Your task to perform on an android device: Clear the cart on amazon.com. Add razer huntsman to the cart on amazon.com Image 0: 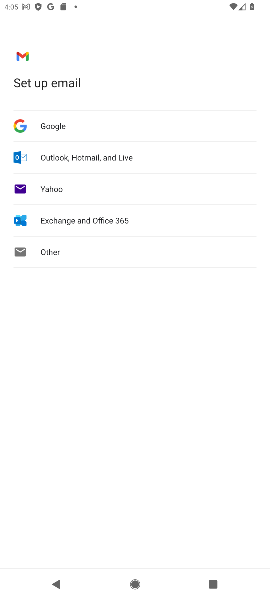
Step 0: press home button
Your task to perform on an android device: Clear the cart on amazon.com. Add razer huntsman to the cart on amazon.com Image 1: 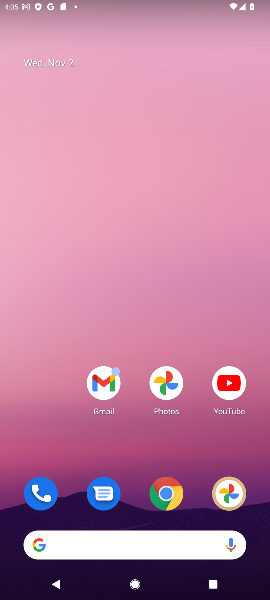
Step 1: drag from (134, 496) to (144, 178)
Your task to perform on an android device: Clear the cart on amazon.com. Add razer huntsman to the cart on amazon.com Image 2: 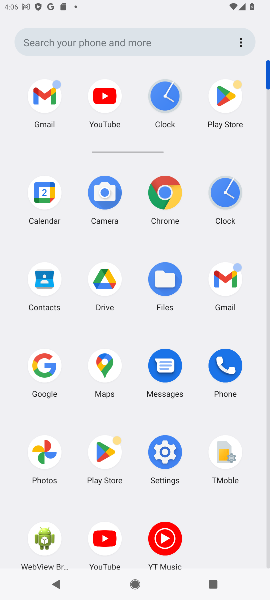
Step 2: click (41, 366)
Your task to perform on an android device: Clear the cart on amazon.com. Add razer huntsman to the cart on amazon.com Image 3: 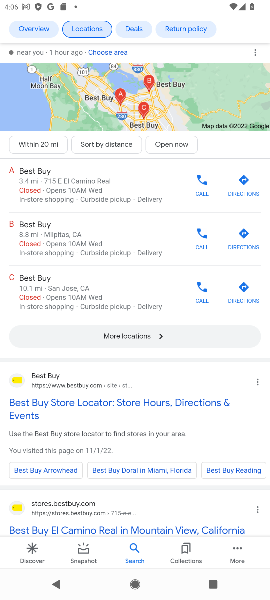
Step 3: drag from (110, 166) to (106, 483)
Your task to perform on an android device: Clear the cart on amazon.com. Add razer huntsman to the cart on amazon.com Image 4: 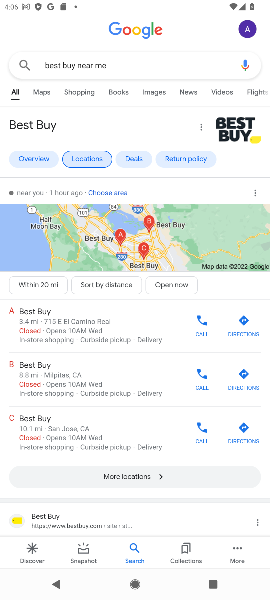
Step 4: click (136, 63)
Your task to perform on an android device: Clear the cart on amazon.com. Add razer huntsman to the cart on amazon.com Image 5: 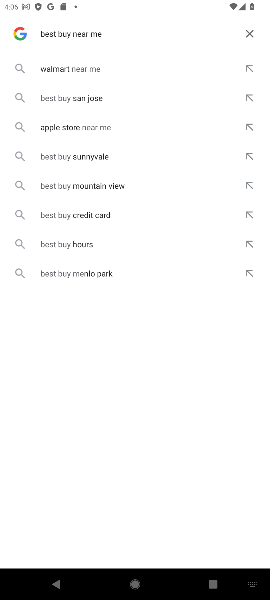
Step 5: click (252, 30)
Your task to perform on an android device: Clear the cart on amazon.com. Add razer huntsman to the cart on amazon.com Image 6: 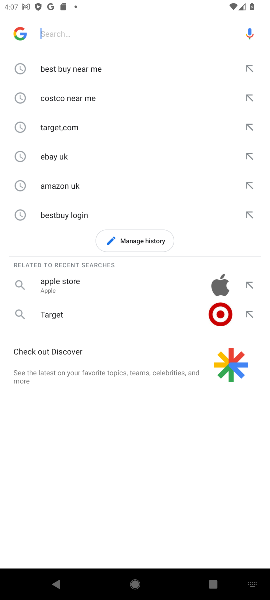
Step 6: click (88, 29)
Your task to perform on an android device: Clear the cart on amazon.com. Add razer huntsman to the cart on amazon.com Image 7: 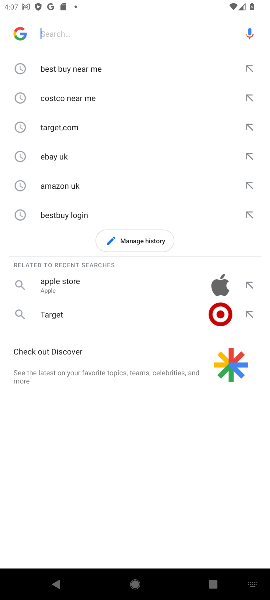
Step 7: type "amazon "
Your task to perform on an android device: Clear the cart on amazon.com. Add razer huntsman to the cart on amazon.com Image 8: 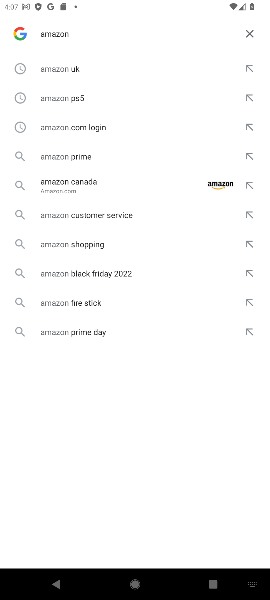
Step 8: click (73, 70)
Your task to perform on an android device: Clear the cart on amazon.com. Add razer huntsman to the cart on amazon.com Image 9: 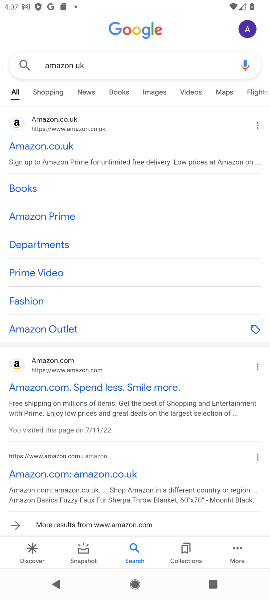
Step 9: click (59, 144)
Your task to perform on an android device: Clear the cart on amazon.com. Add razer huntsman to the cart on amazon.com Image 10: 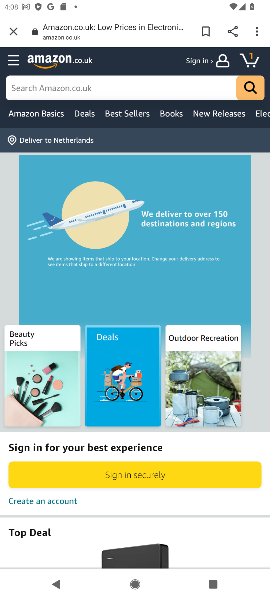
Step 10: click (86, 86)
Your task to perform on an android device: Clear the cart on amazon.com. Add razer huntsman to the cart on amazon.com Image 11: 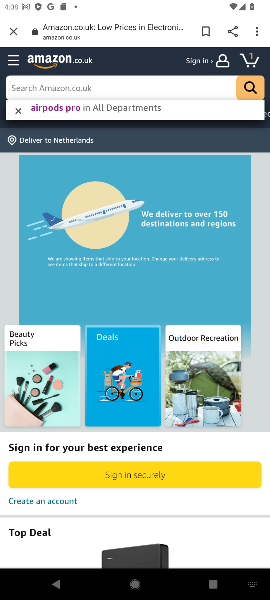
Step 11: type "razer huntsman "
Your task to perform on an android device: Clear the cart on amazon.com. Add razer huntsman to the cart on amazon.com Image 12: 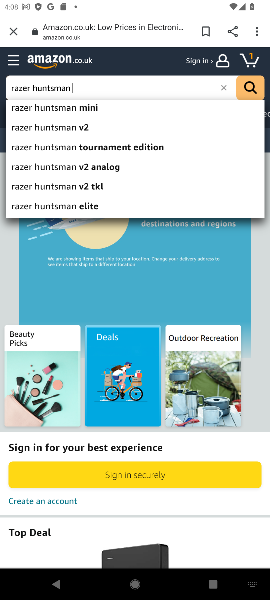
Step 12: click (59, 108)
Your task to perform on an android device: Clear the cart on amazon.com. Add razer huntsman to the cart on amazon.com Image 13: 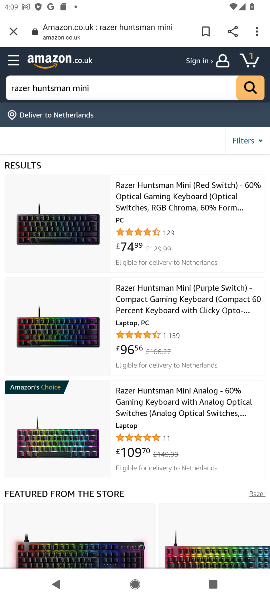
Step 13: click (161, 198)
Your task to perform on an android device: Clear the cart on amazon.com. Add razer huntsman to the cart on amazon.com Image 14: 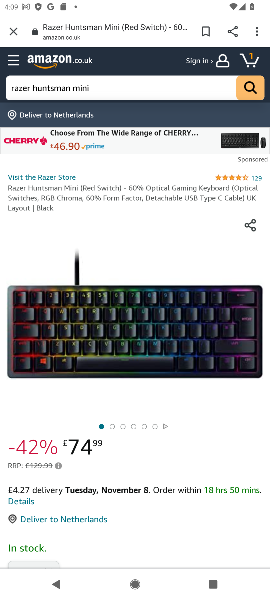
Step 14: drag from (162, 466) to (159, 233)
Your task to perform on an android device: Clear the cart on amazon.com. Add razer huntsman to the cart on amazon.com Image 15: 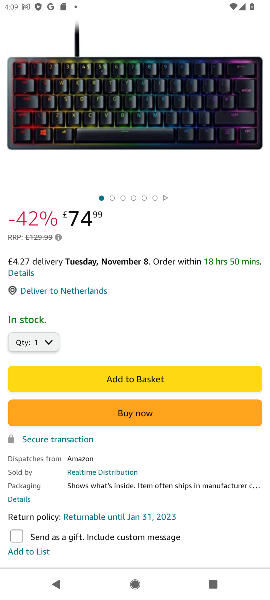
Step 15: click (169, 376)
Your task to perform on an android device: Clear the cart on amazon.com. Add razer huntsman to the cart on amazon.com Image 16: 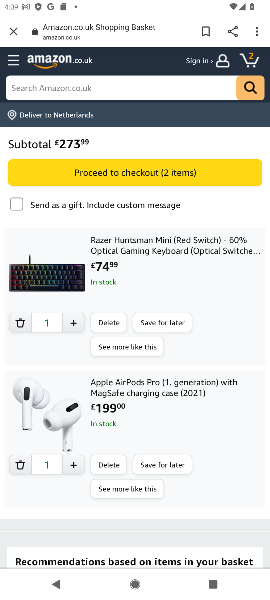
Step 16: task complete